Your task to perform on an android device: Open Google Maps and go to "Timeline" Image 0: 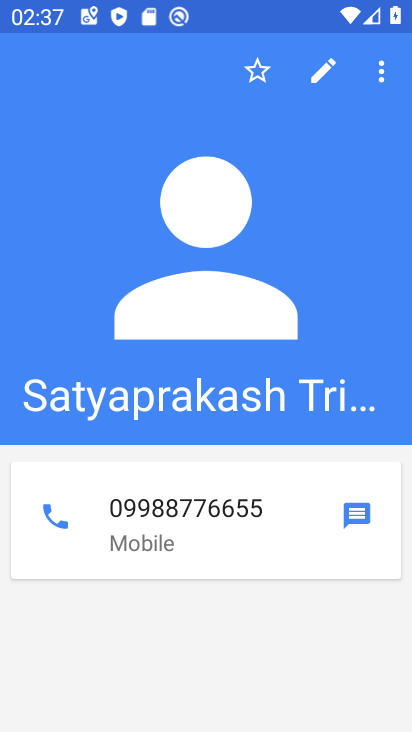
Step 0: press back button
Your task to perform on an android device: Open Google Maps and go to "Timeline" Image 1: 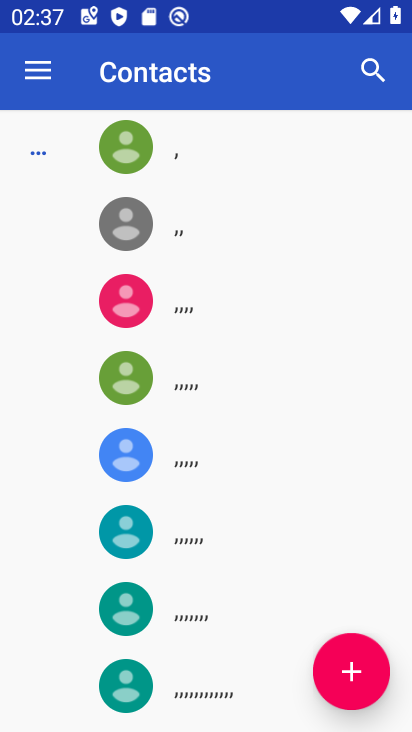
Step 1: press back button
Your task to perform on an android device: Open Google Maps and go to "Timeline" Image 2: 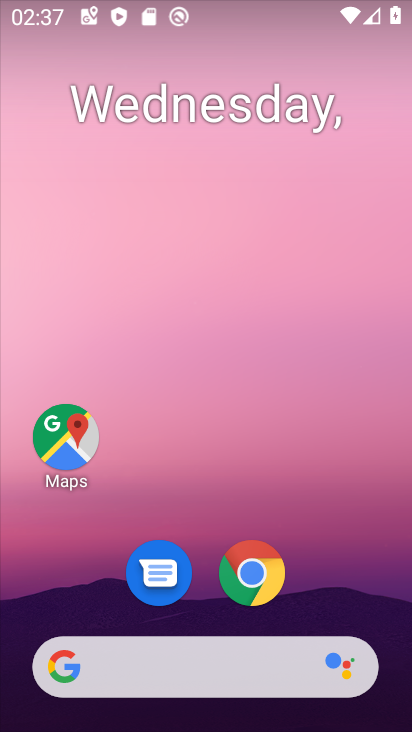
Step 2: click (66, 440)
Your task to perform on an android device: Open Google Maps and go to "Timeline" Image 3: 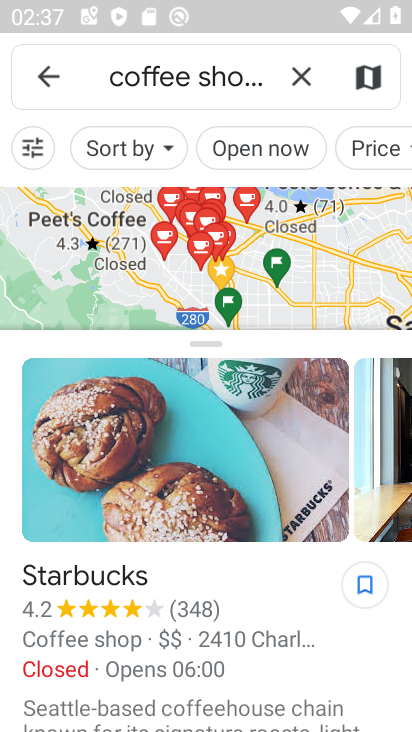
Step 3: click (300, 75)
Your task to perform on an android device: Open Google Maps and go to "Timeline" Image 4: 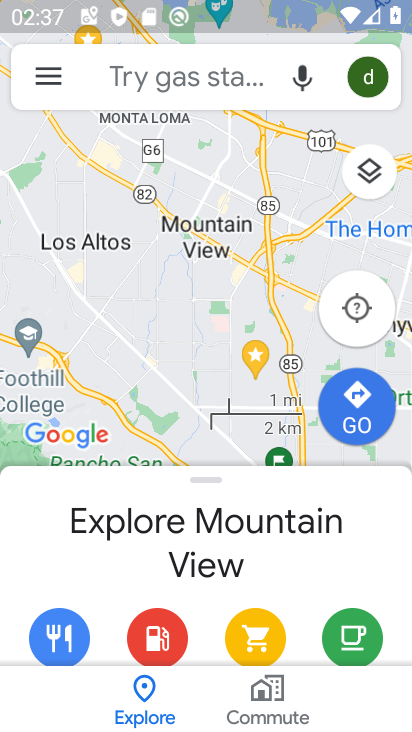
Step 4: click (56, 79)
Your task to perform on an android device: Open Google Maps and go to "Timeline" Image 5: 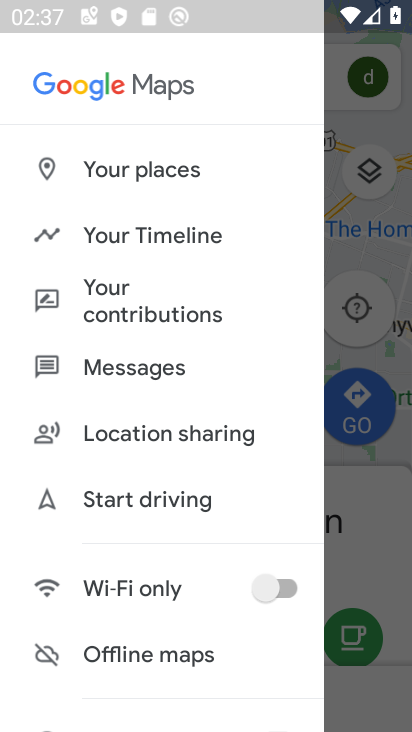
Step 5: click (130, 243)
Your task to perform on an android device: Open Google Maps and go to "Timeline" Image 6: 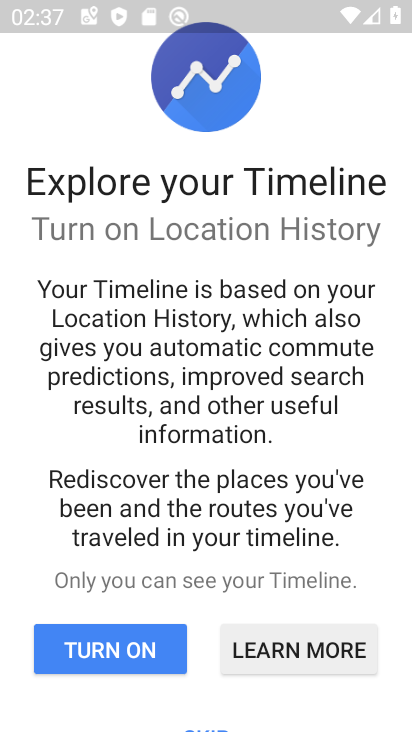
Step 6: click (139, 645)
Your task to perform on an android device: Open Google Maps and go to "Timeline" Image 7: 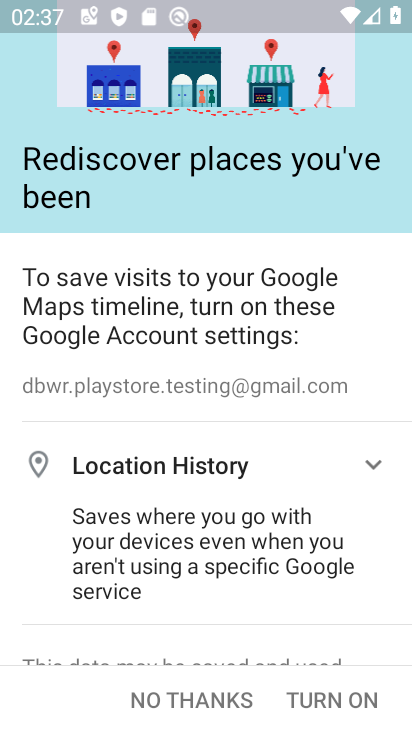
Step 7: click (229, 693)
Your task to perform on an android device: Open Google Maps and go to "Timeline" Image 8: 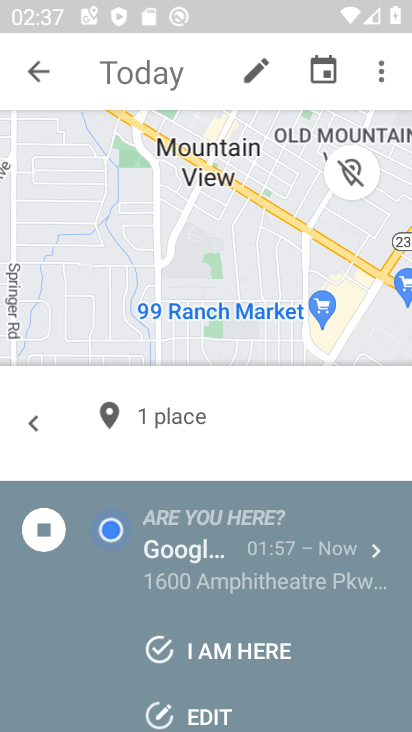
Step 8: task complete